Your task to perform on an android device: Go to CNN.com Image 0: 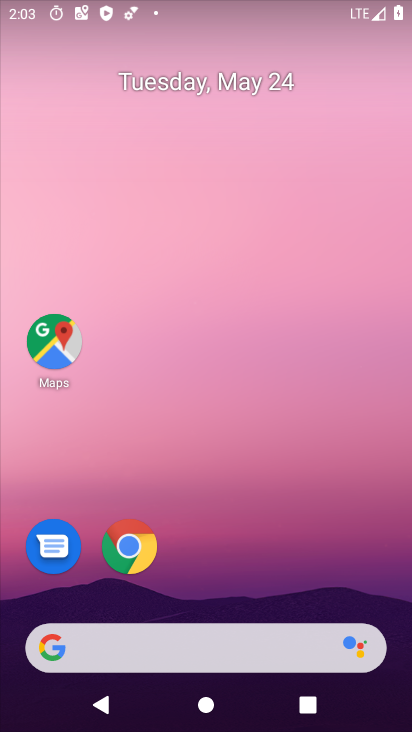
Step 0: drag from (199, 204) to (141, 34)
Your task to perform on an android device: Go to CNN.com Image 1: 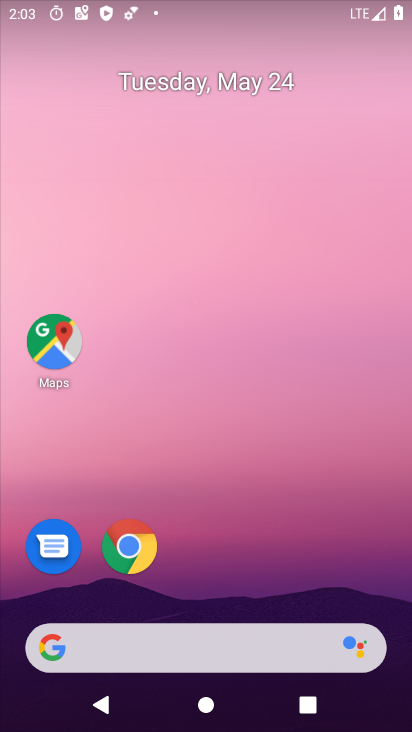
Step 1: click (122, 565)
Your task to perform on an android device: Go to CNN.com Image 2: 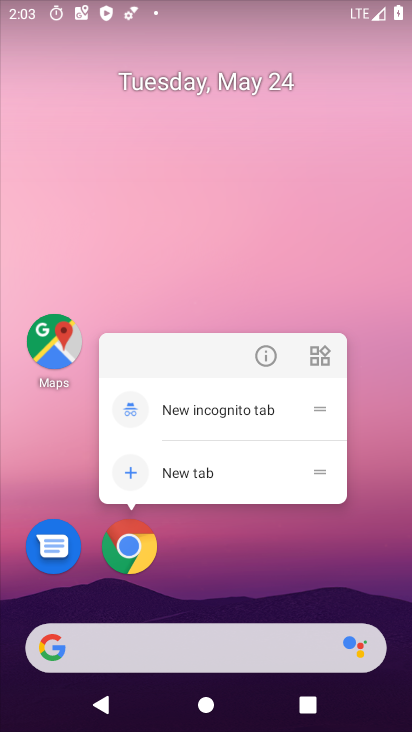
Step 2: click (125, 560)
Your task to perform on an android device: Go to CNN.com Image 3: 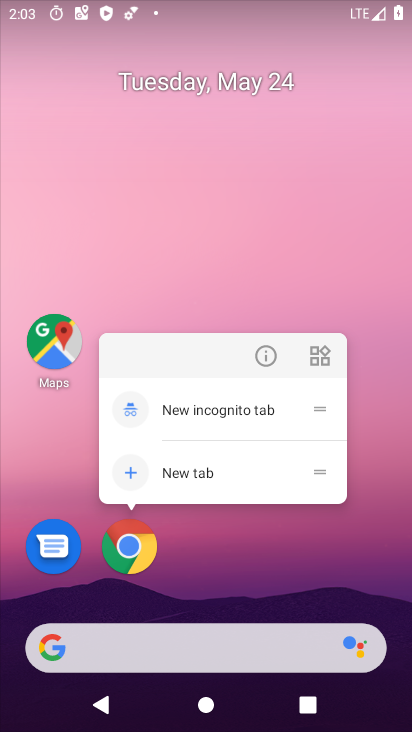
Step 3: click (125, 560)
Your task to perform on an android device: Go to CNN.com Image 4: 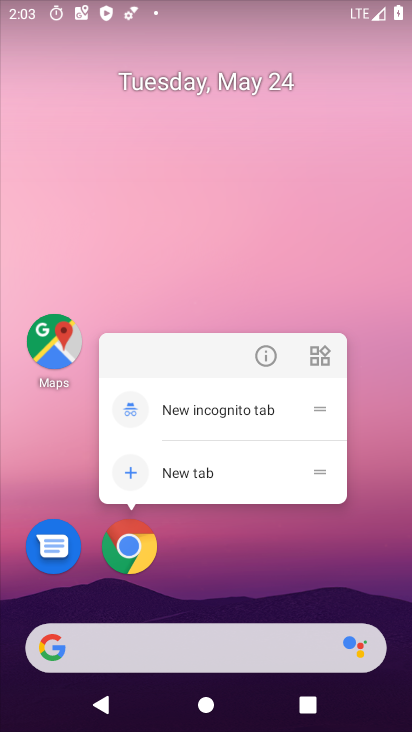
Step 4: click (125, 560)
Your task to perform on an android device: Go to CNN.com Image 5: 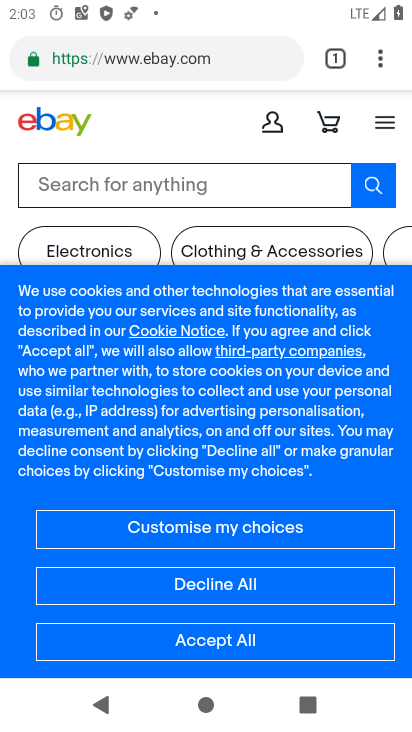
Step 5: click (139, 60)
Your task to perform on an android device: Go to CNN.com Image 6: 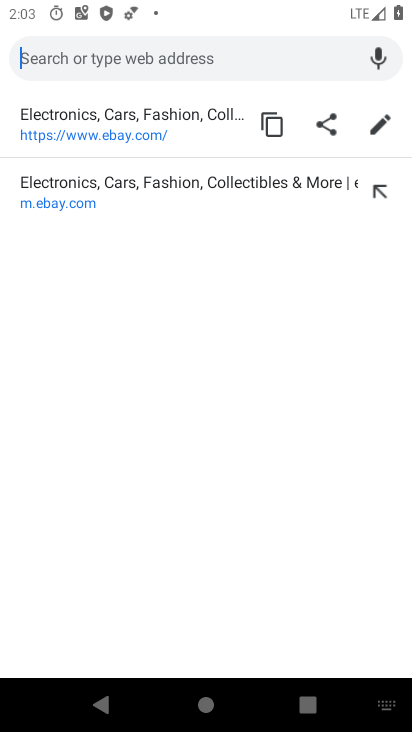
Step 6: type "cnn.com"
Your task to perform on an android device: Go to CNN.com Image 7: 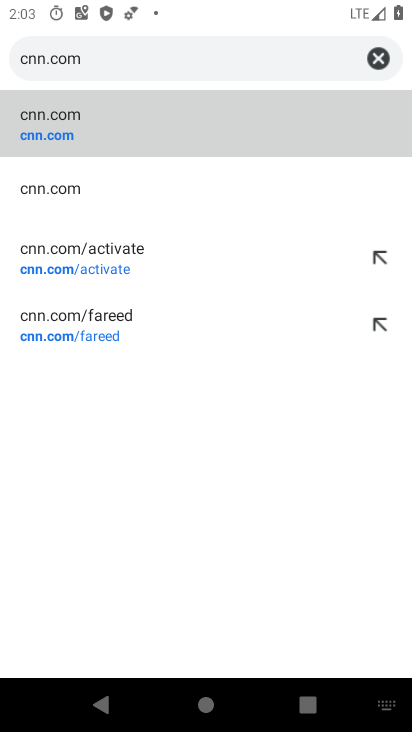
Step 7: click (137, 115)
Your task to perform on an android device: Go to CNN.com Image 8: 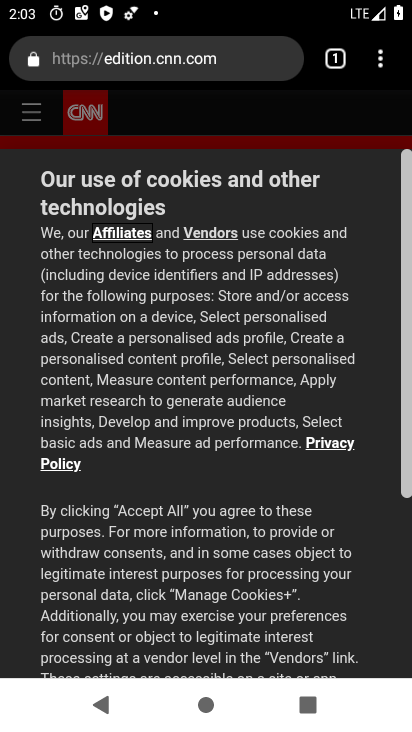
Step 8: task complete